Your task to perform on an android device: change text size in settings app Image 0: 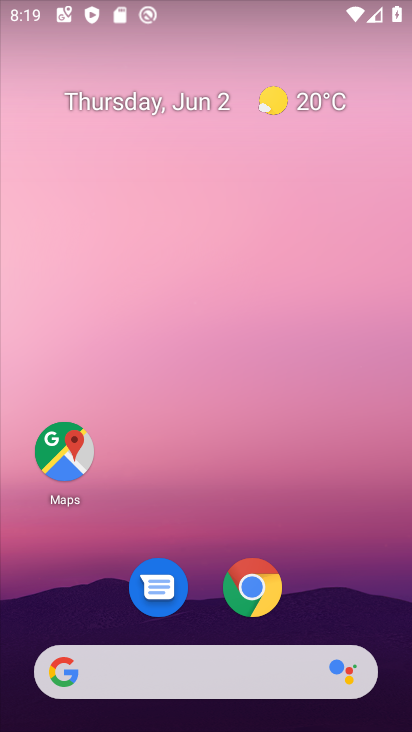
Step 0: drag from (196, 601) to (165, 126)
Your task to perform on an android device: change text size in settings app Image 1: 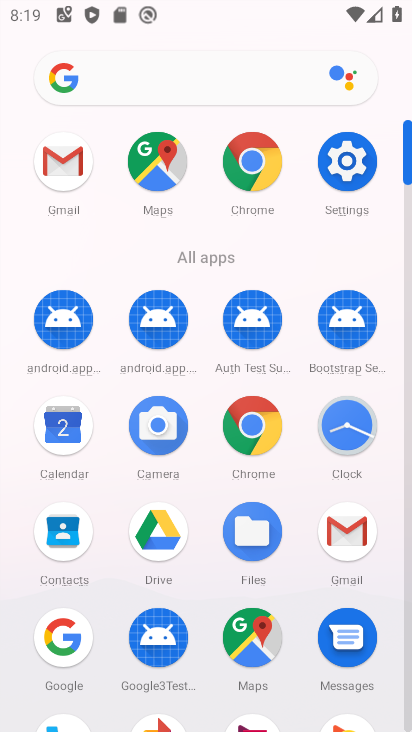
Step 1: click (370, 139)
Your task to perform on an android device: change text size in settings app Image 2: 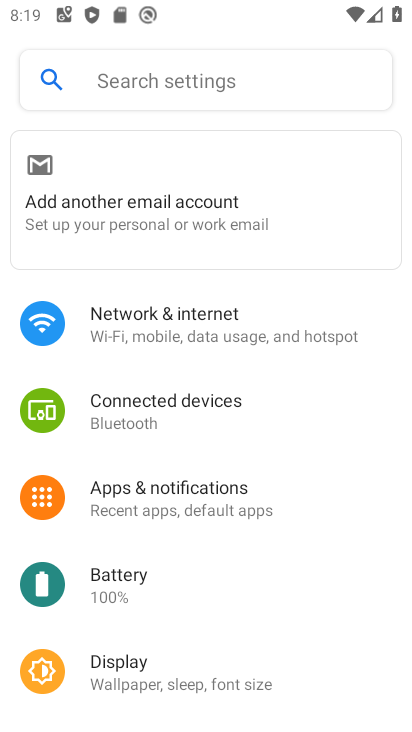
Step 2: click (108, 666)
Your task to perform on an android device: change text size in settings app Image 3: 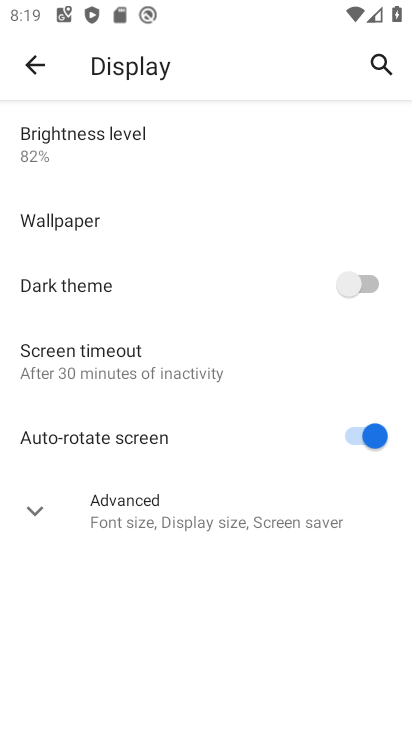
Step 3: click (195, 527)
Your task to perform on an android device: change text size in settings app Image 4: 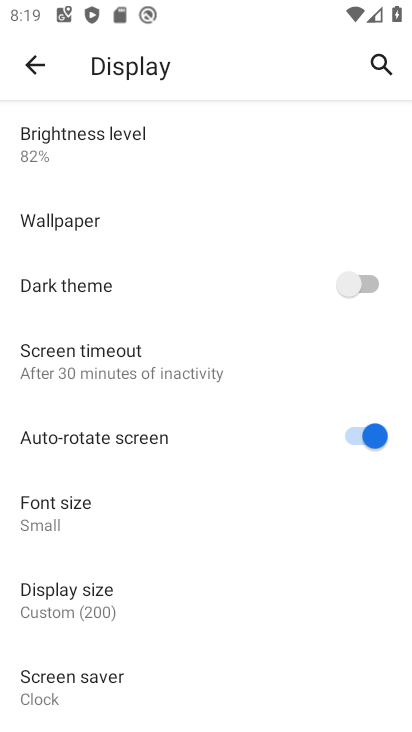
Step 4: click (81, 531)
Your task to perform on an android device: change text size in settings app Image 5: 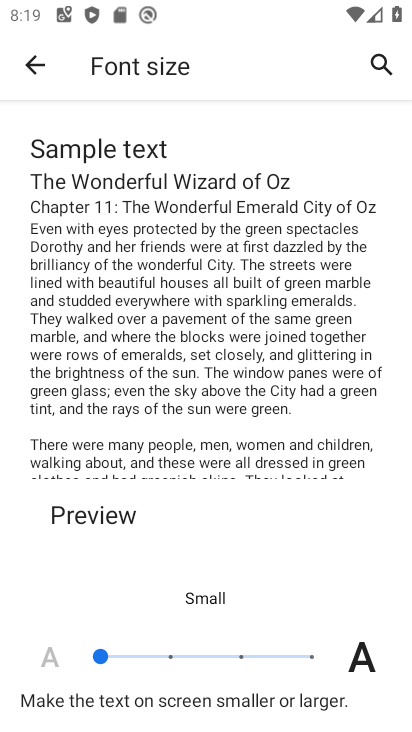
Step 5: click (171, 652)
Your task to perform on an android device: change text size in settings app Image 6: 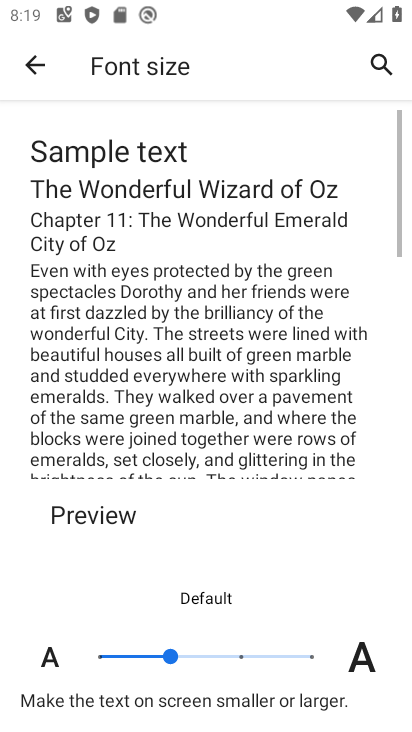
Step 6: task complete